Your task to perform on an android device: change the upload size in google photos Image 0: 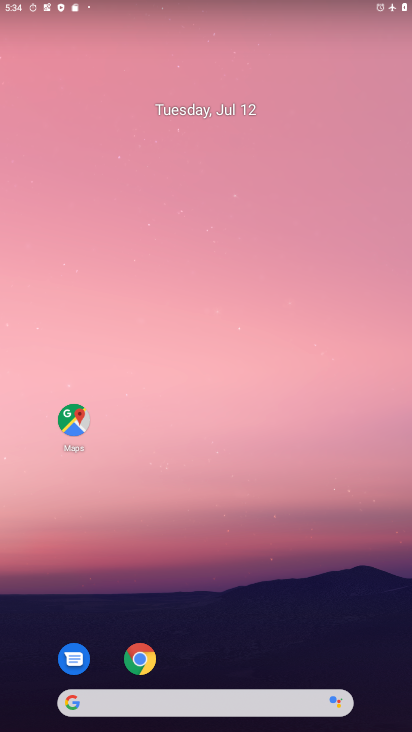
Step 0: drag from (186, 535) to (186, 409)
Your task to perform on an android device: change the upload size in google photos Image 1: 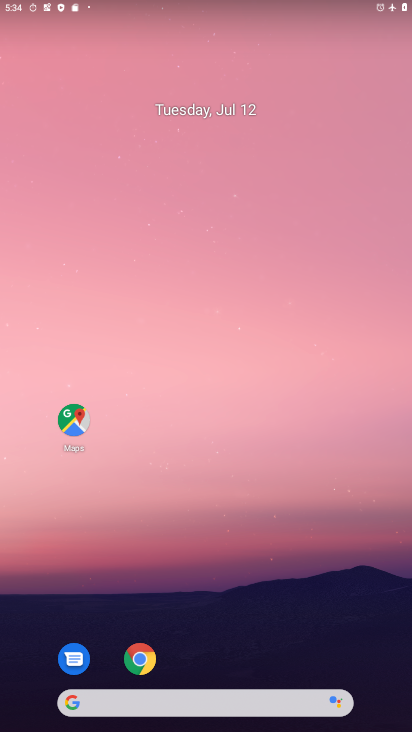
Step 1: drag from (252, 609) to (253, 23)
Your task to perform on an android device: change the upload size in google photos Image 2: 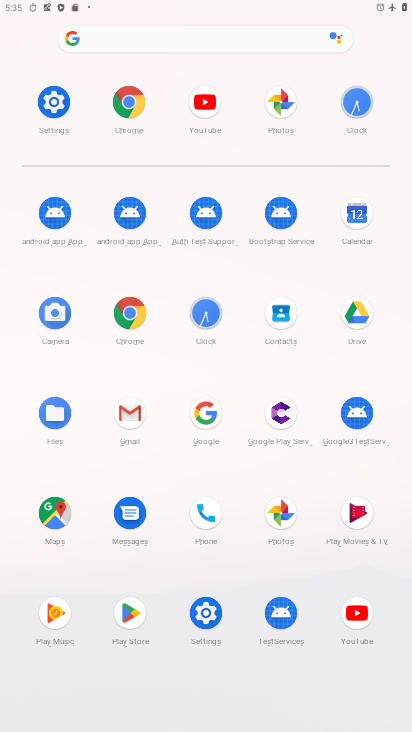
Step 2: click (287, 106)
Your task to perform on an android device: change the upload size in google photos Image 3: 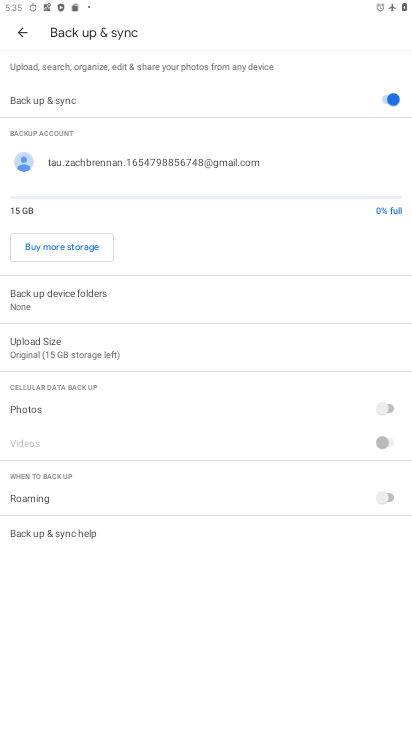
Step 3: click (95, 352)
Your task to perform on an android device: change the upload size in google photos Image 4: 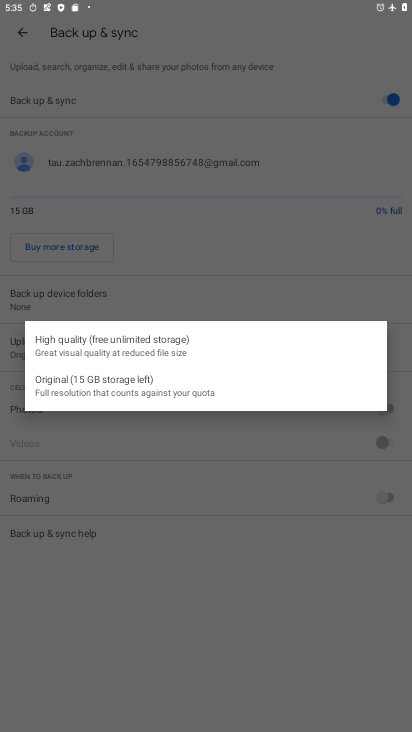
Step 4: click (81, 380)
Your task to perform on an android device: change the upload size in google photos Image 5: 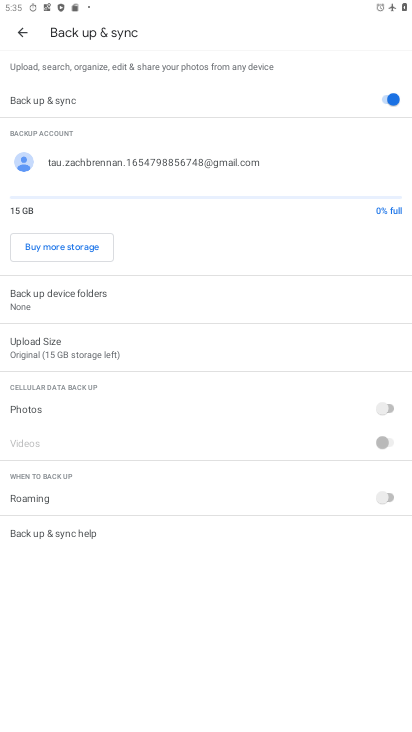
Step 5: task complete